Your task to perform on an android device: turn off airplane mode Image 0: 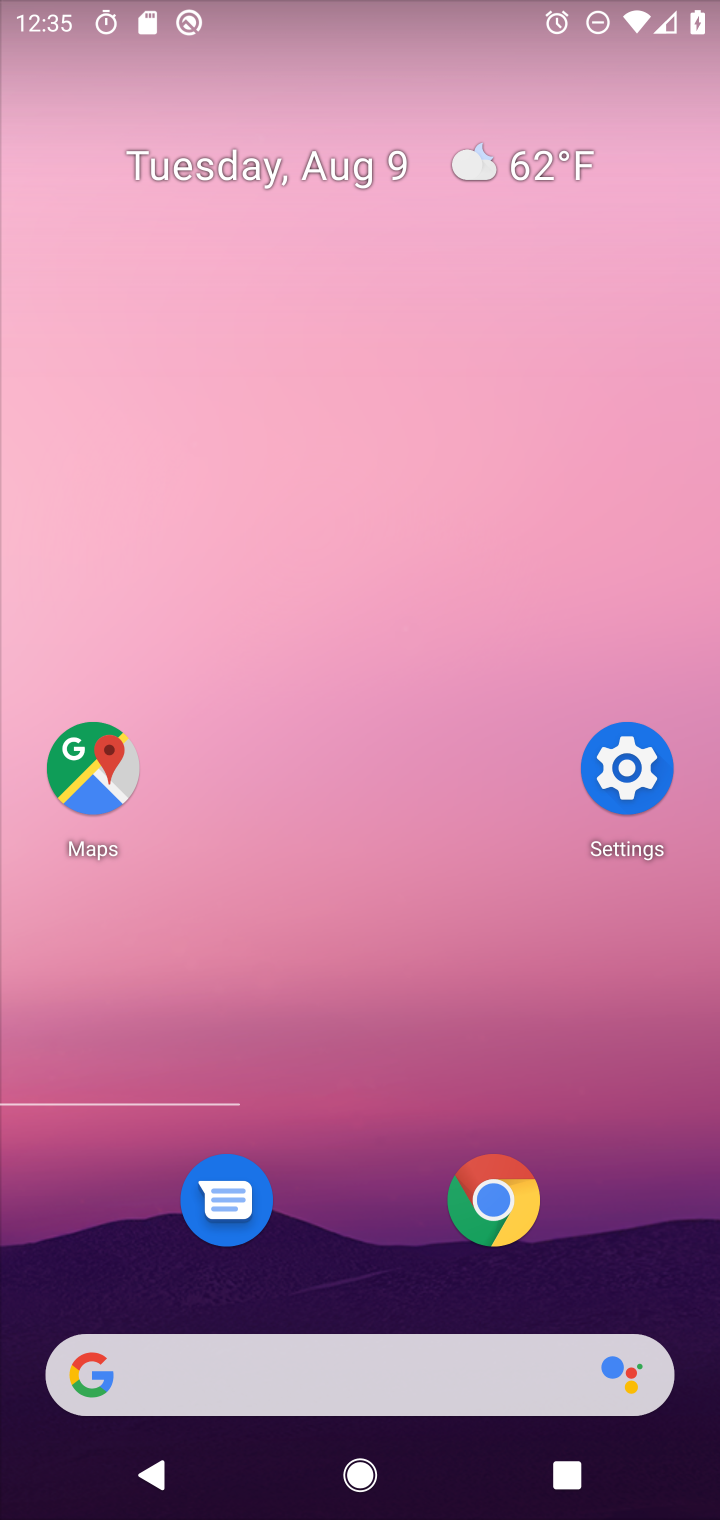
Step 0: press home button
Your task to perform on an android device: turn off airplane mode Image 1: 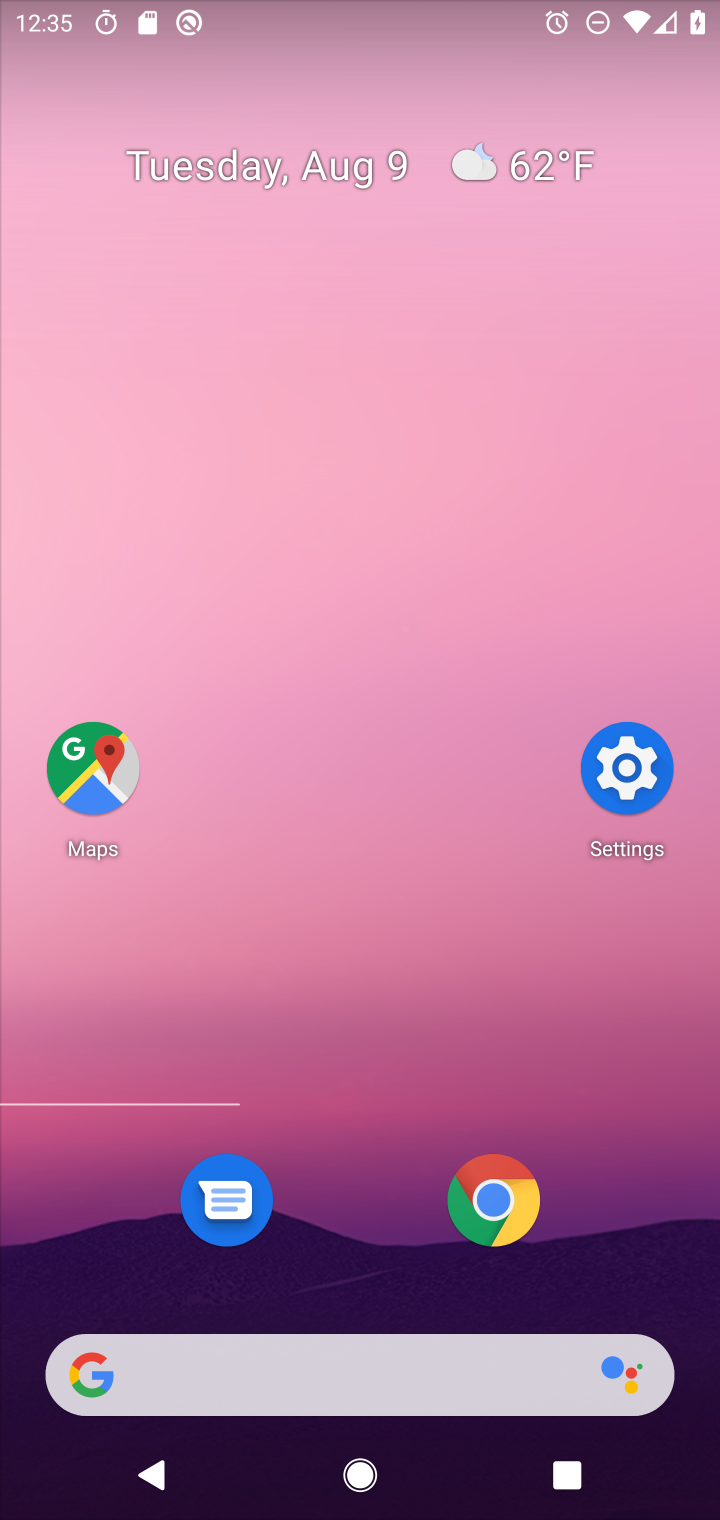
Step 1: click (621, 766)
Your task to perform on an android device: turn off airplane mode Image 2: 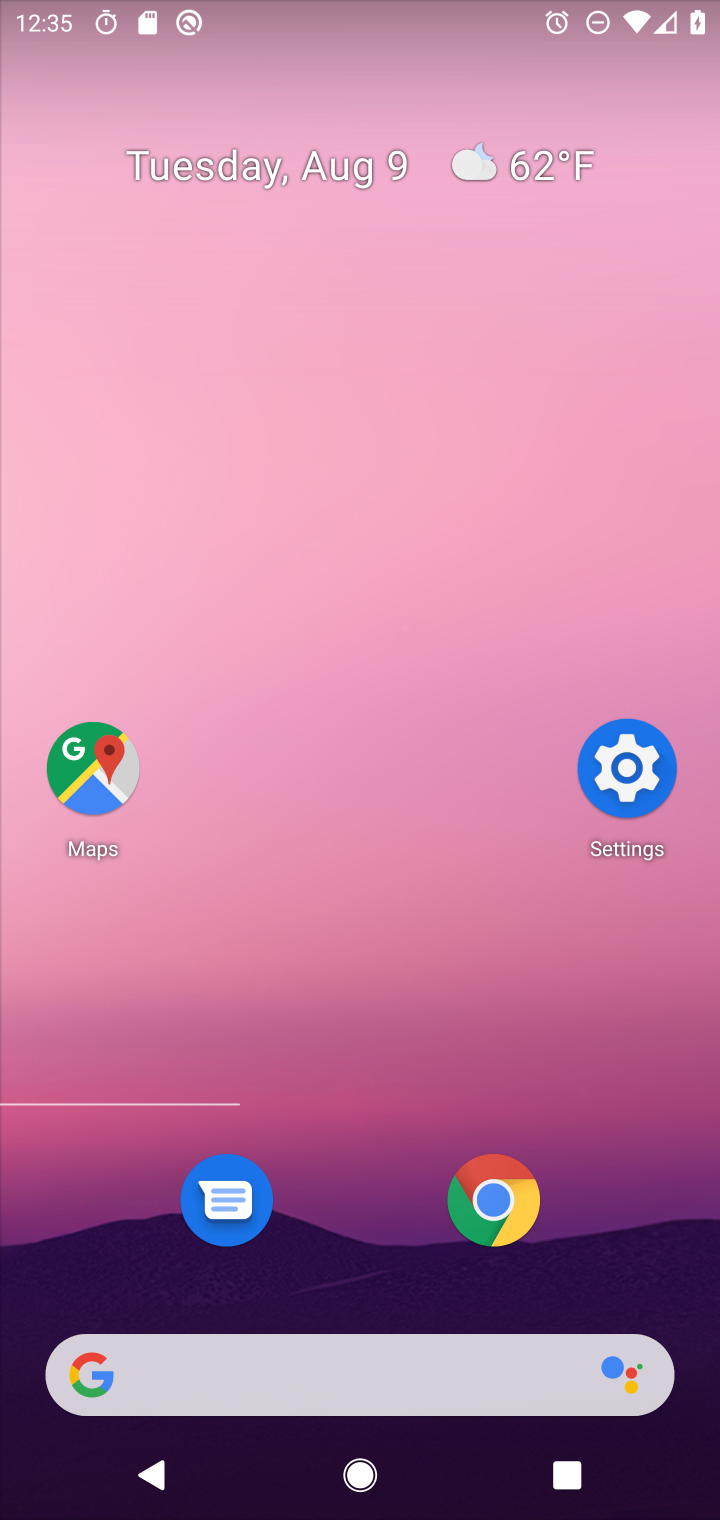
Step 2: click (621, 772)
Your task to perform on an android device: turn off airplane mode Image 3: 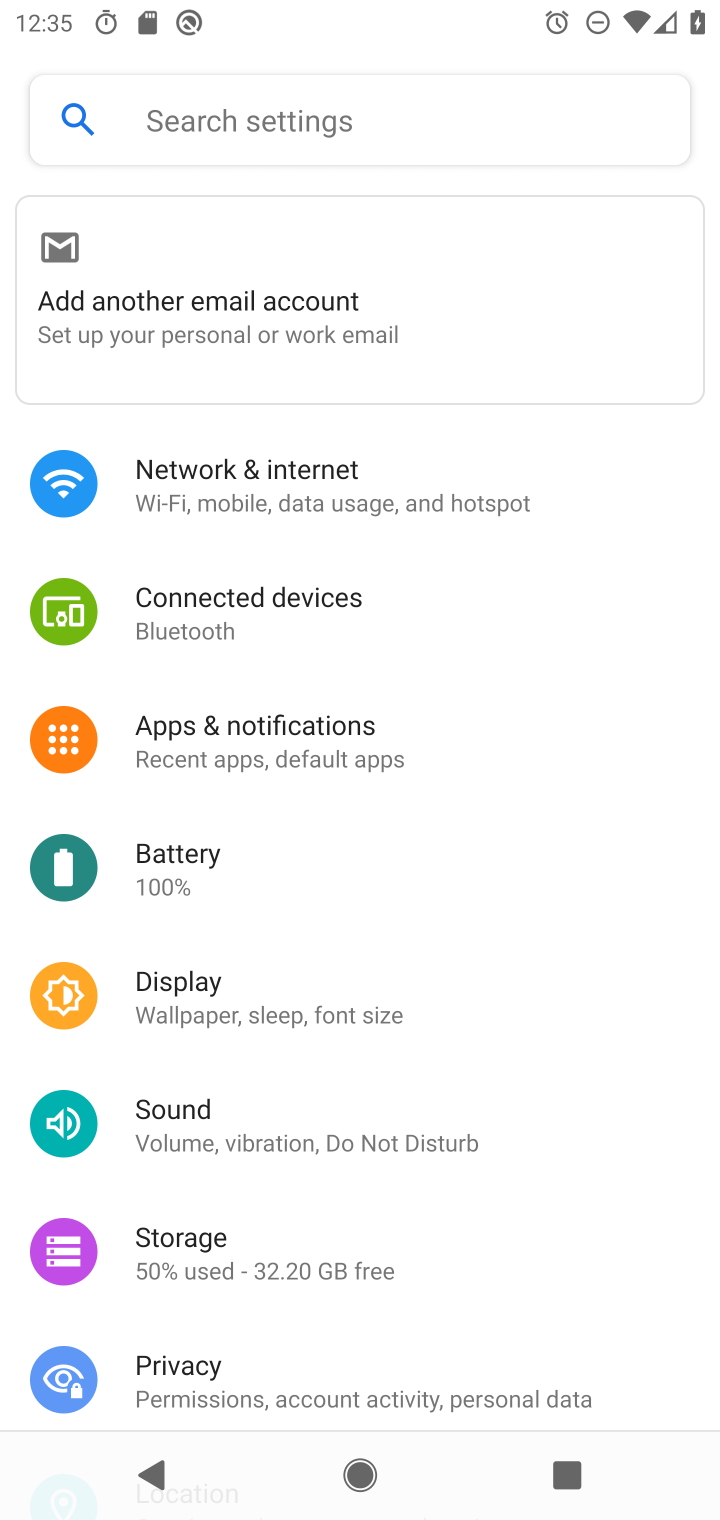
Step 3: click (262, 482)
Your task to perform on an android device: turn off airplane mode Image 4: 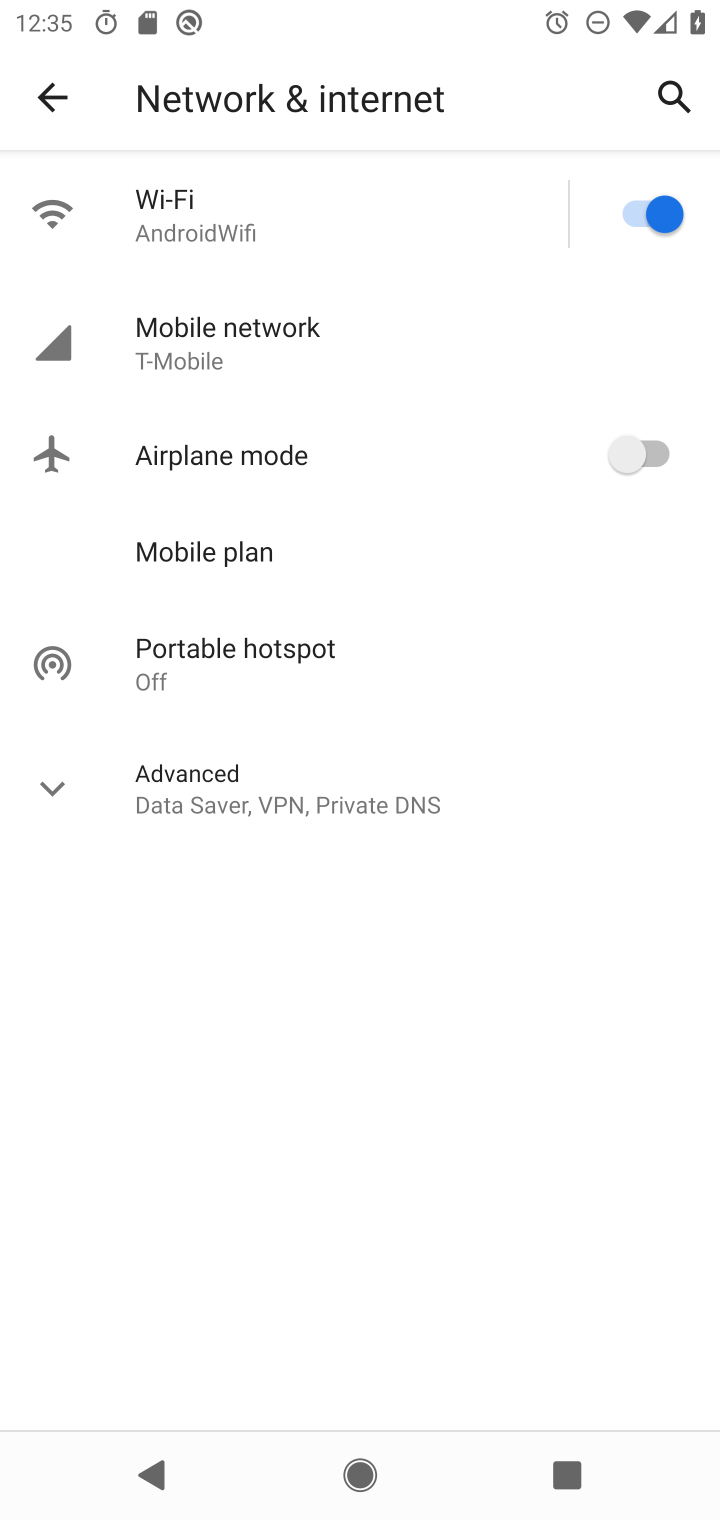
Step 4: task complete